Your task to perform on an android device: open the mobile data screen to see how much data has been used Image 0: 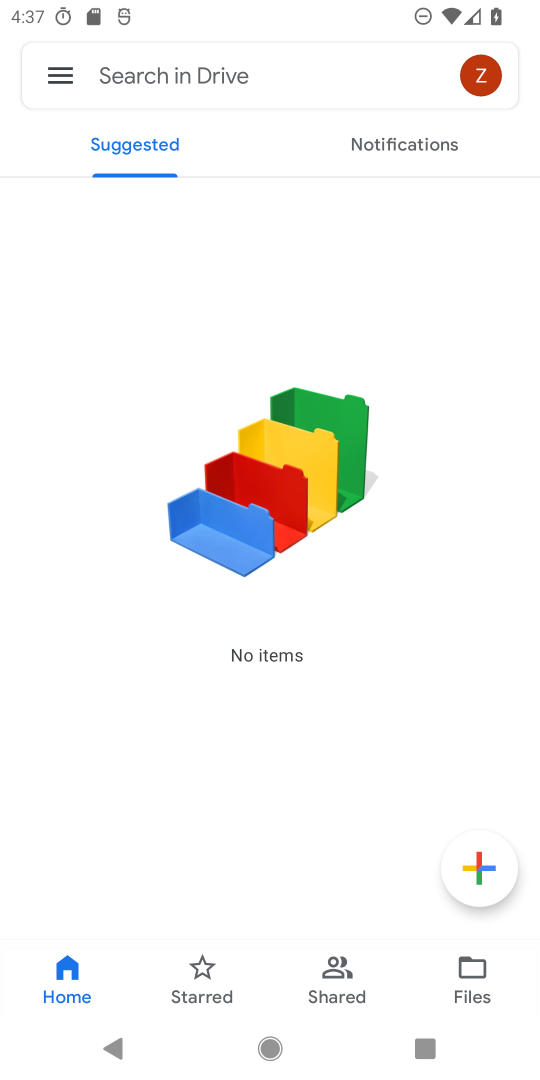
Step 0: press home button
Your task to perform on an android device: open the mobile data screen to see how much data has been used Image 1: 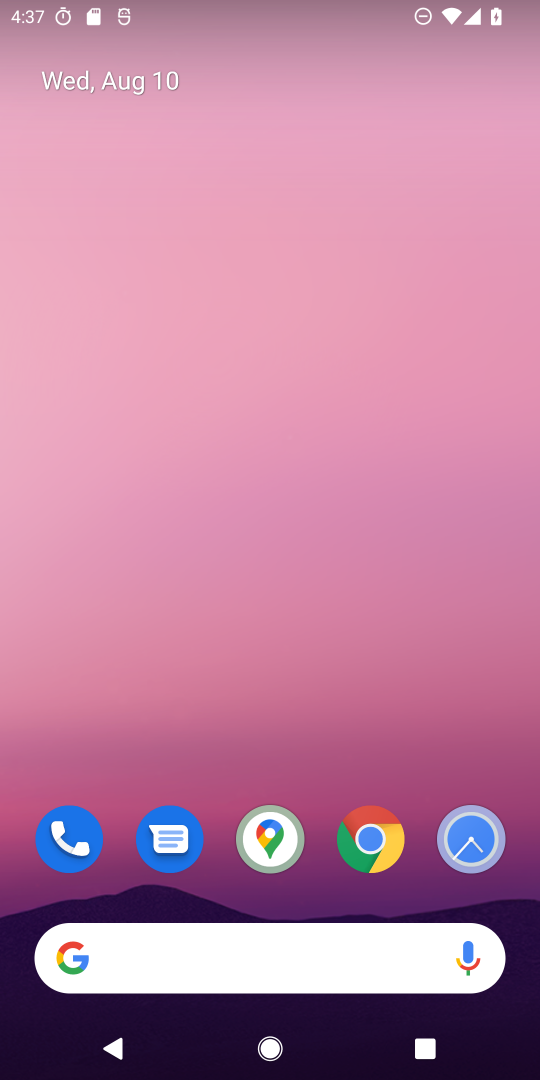
Step 1: drag from (52, 1029) to (440, 415)
Your task to perform on an android device: open the mobile data screen to see how much data has been used Image 2: 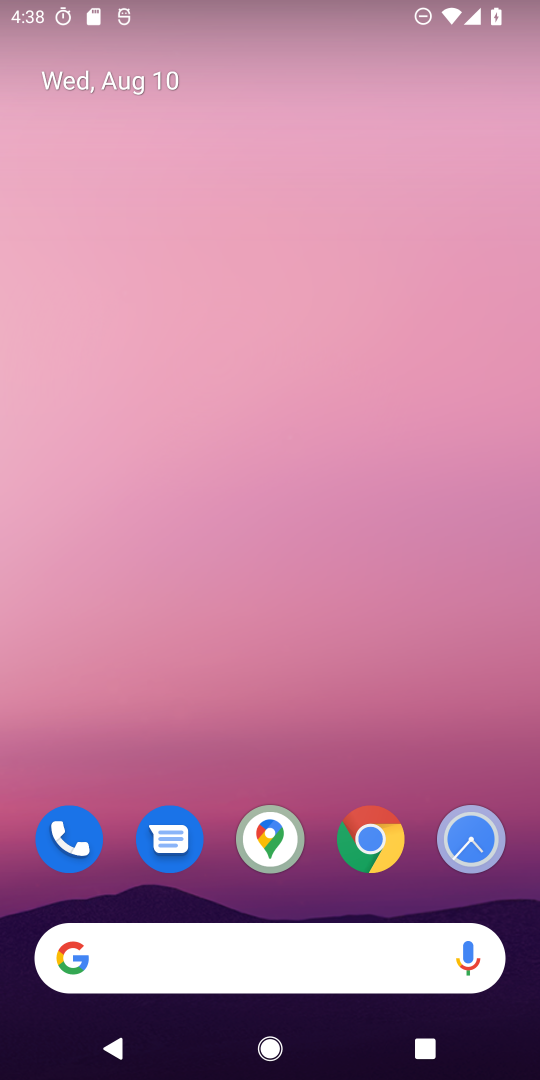
Step 2: drag from (7, 1010) to (330, 383)
Your task to perform on an android device: open the mobile data screen to see how much data has been used Image 3: 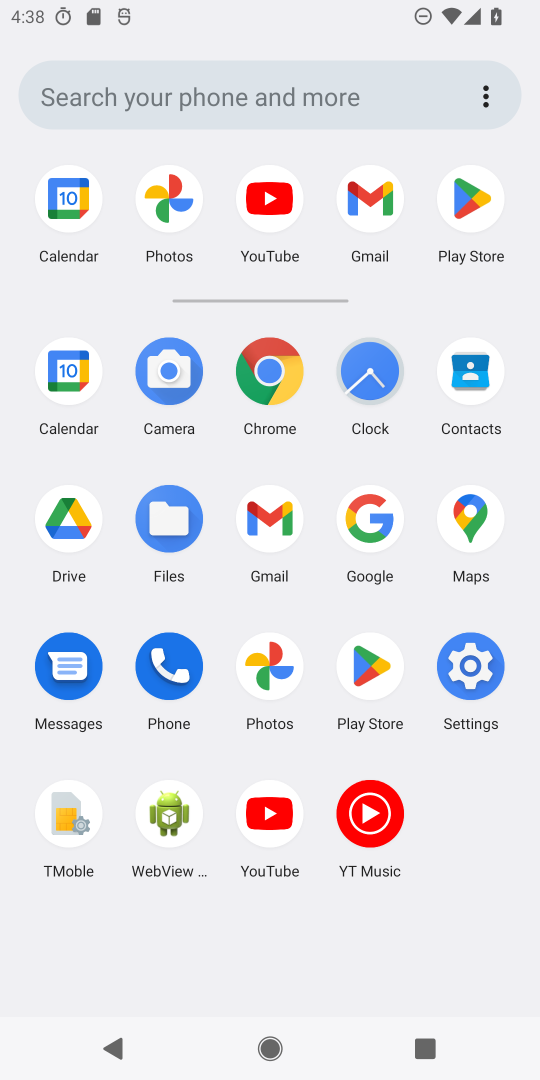
Step 3: click (465, 657)
Your task to perform on an android device: open the mobile data screen to see how much data has been used Image 4: 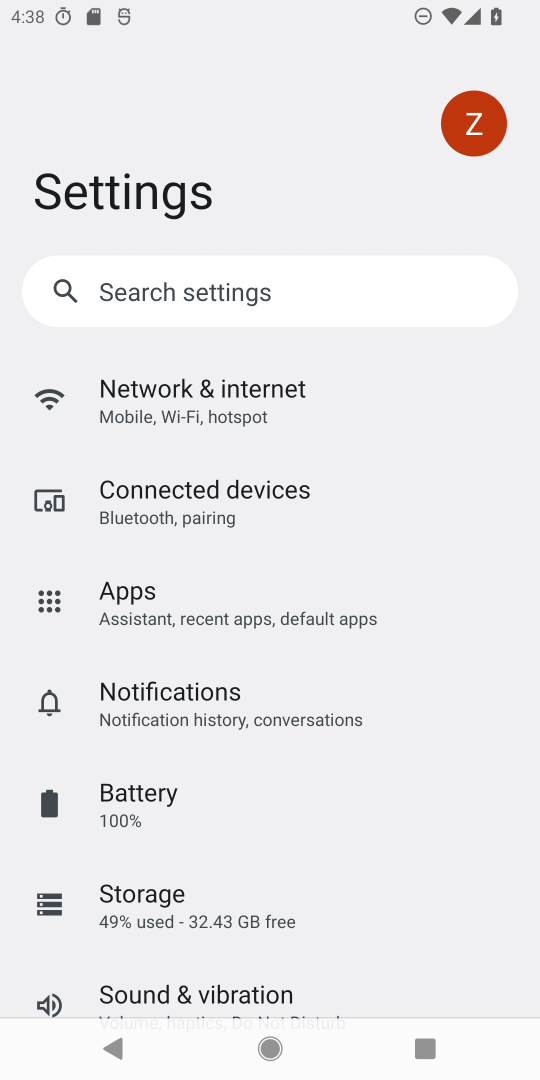
Step 4: click (189, 400)
Your task to perform on an android device: open the mobile data screen to see how much data has been used Image 5: 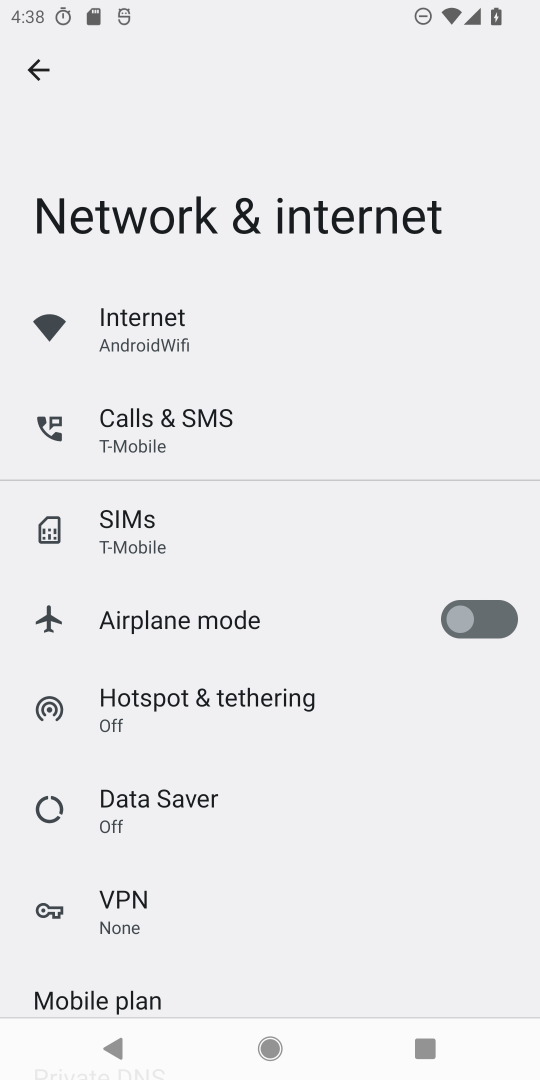
Step 5: drag from (361, 923) to (399, 348)
Your task to perform on an android device: open the mobile data screen to see how much data has been used Image 6: 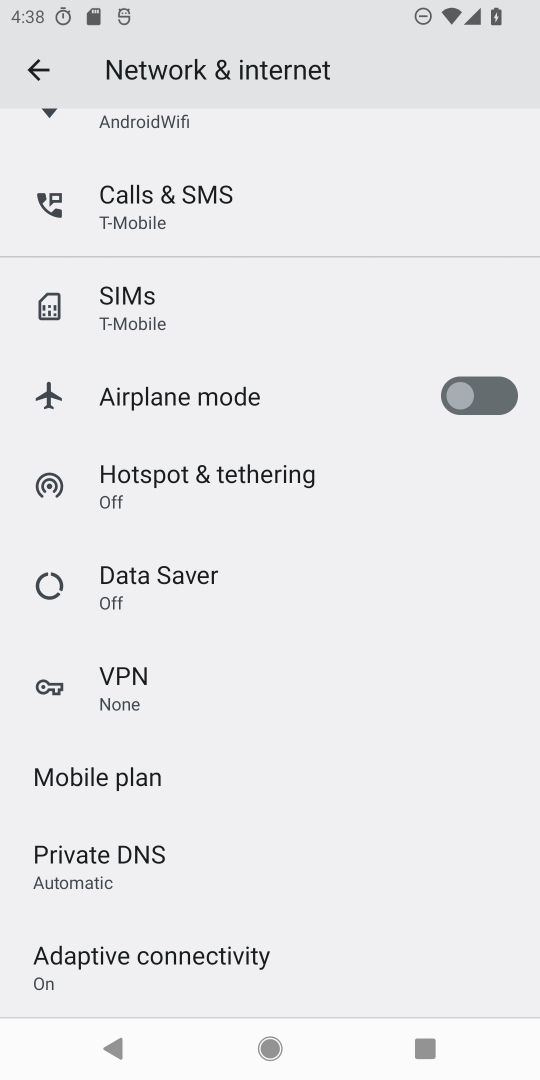
Step 6: drag from (387, 854) to (445, 46)
Your task to perform on an android device: open the mobile data screen to see how much data has been used Image 7: 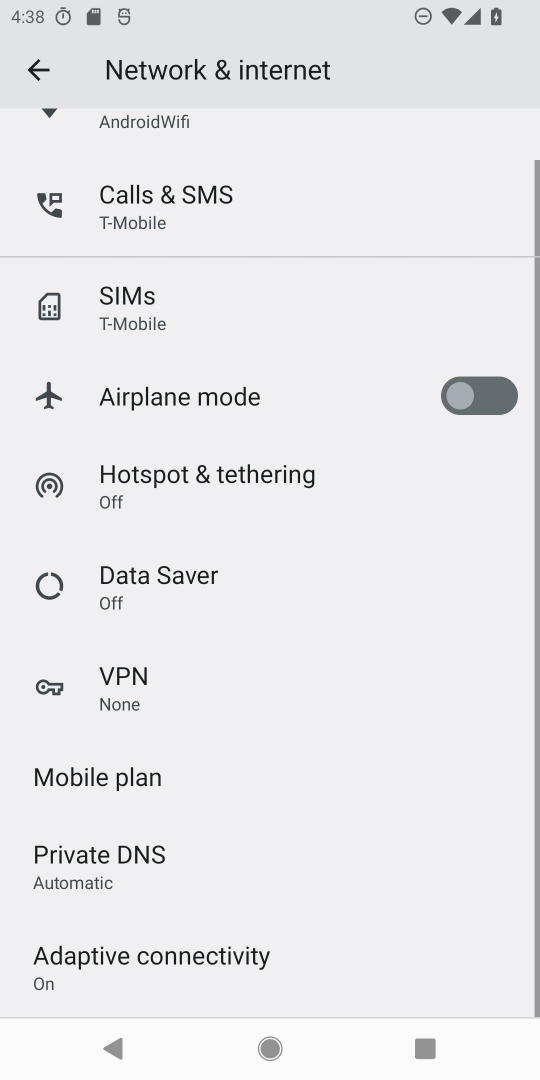
Step 7: drag from (427, 139) to (285, 902)
Your task to perform on an android device: open the mobile data screen to see how much data has been used Image 8: 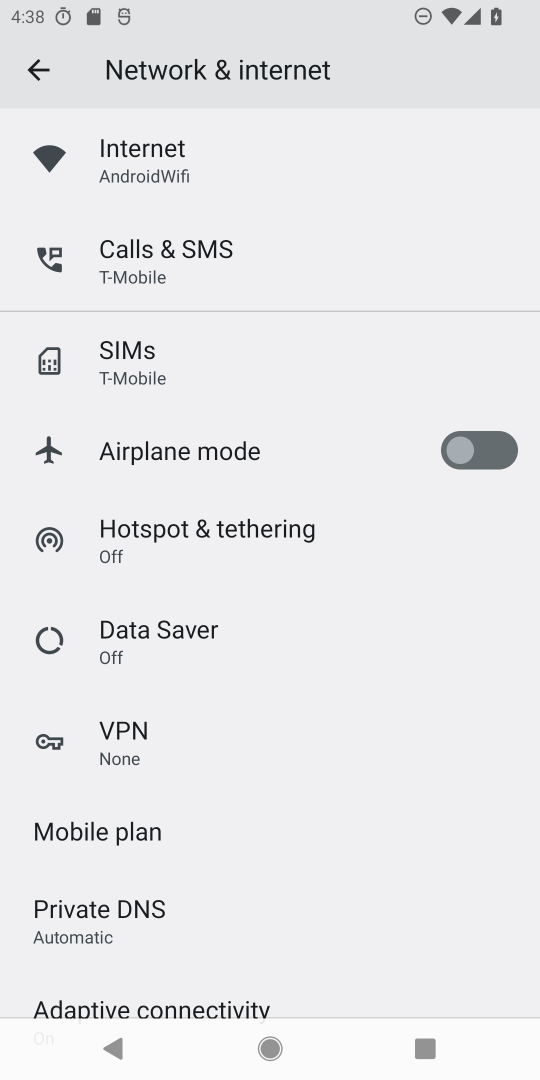
Step 8: click (148, 160)
Your task to perform on an android device: open the mobile data screen to see how much data has been used Image 9: 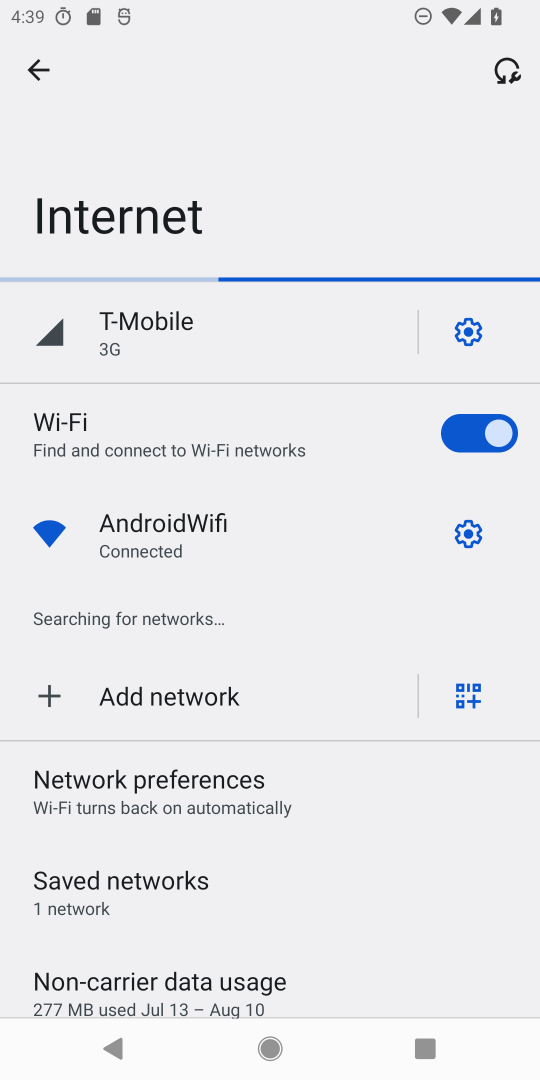
Step 9: drag from (369, 931) to (372, 480)
Your task to perform on an android device: open the mobile data screen to see how much data has been used Image 10: 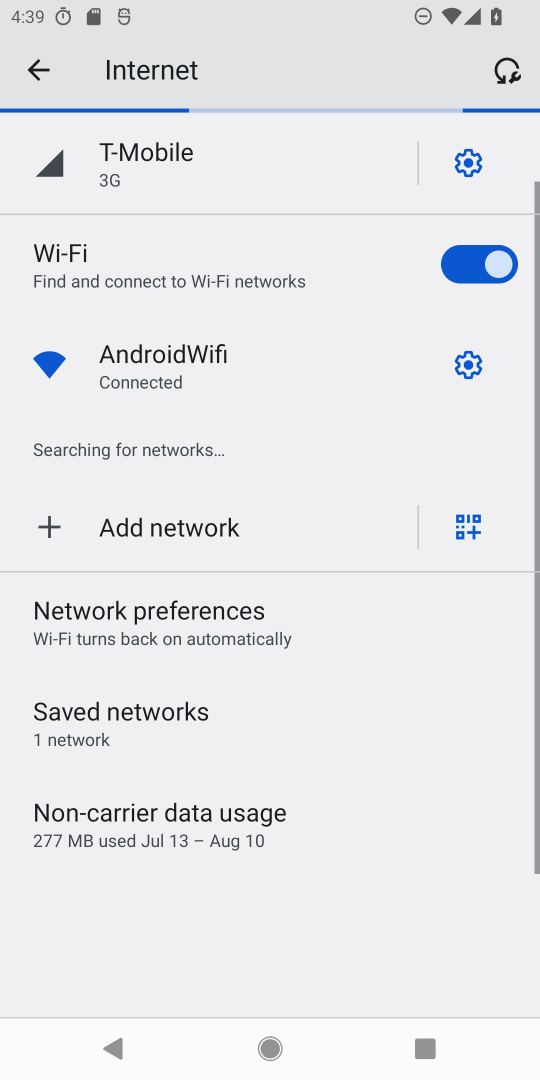
Step 10: click (221, 831)
Your task to perform on an android device: open the mobile data screen to see how much data has been used Image 11: 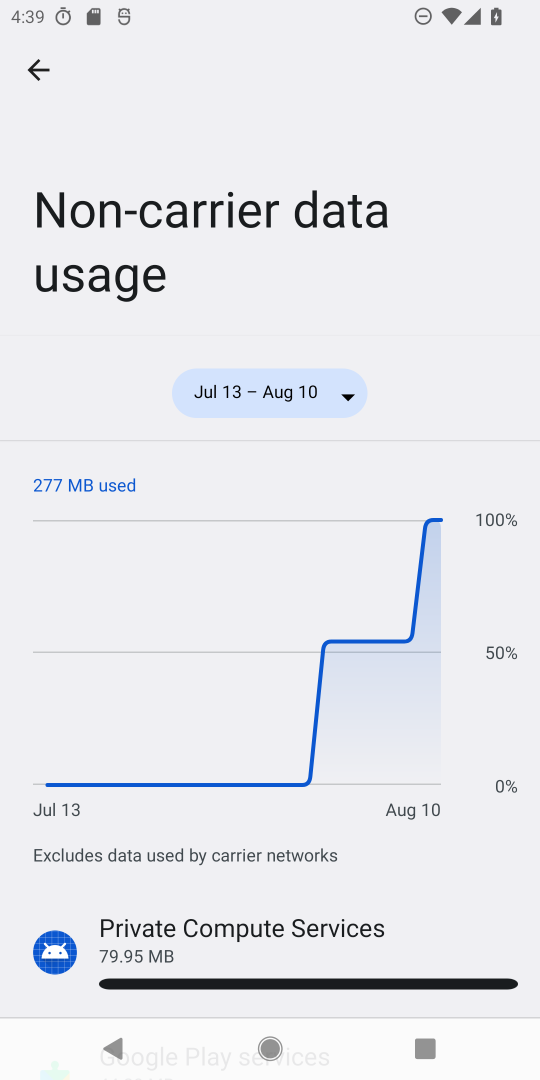
Step 11: task complete